Your task to perform on an android device: Turn off the flashlight Image 0: 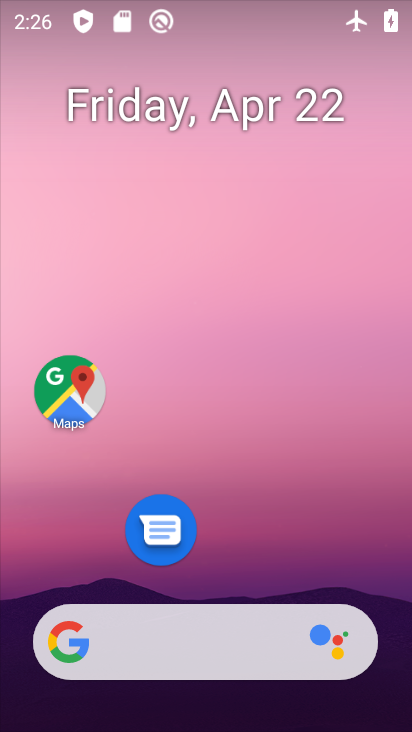
Step 0: drag from (288, 582) to (201, 36)
Your task to perform on an android device: Turn off the flashlight Image 1: 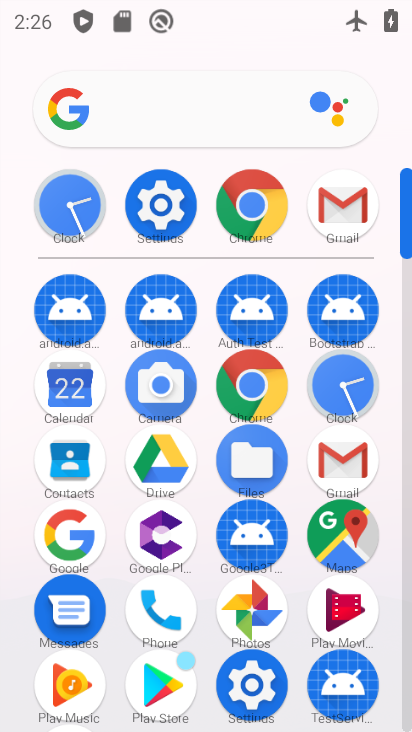
Step 1: click (164, 207)
Your task to perform on an android device: Turn off the flashlight Image 2: 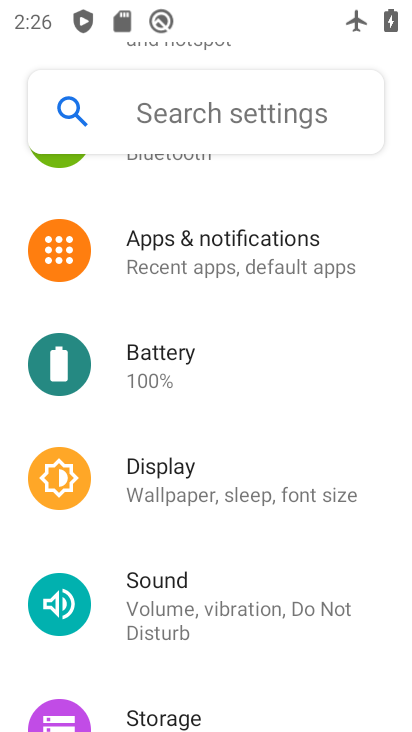
Step 2: click (225, 251)
Your task to perform on an android device: Turn off the flashlight Image 3: 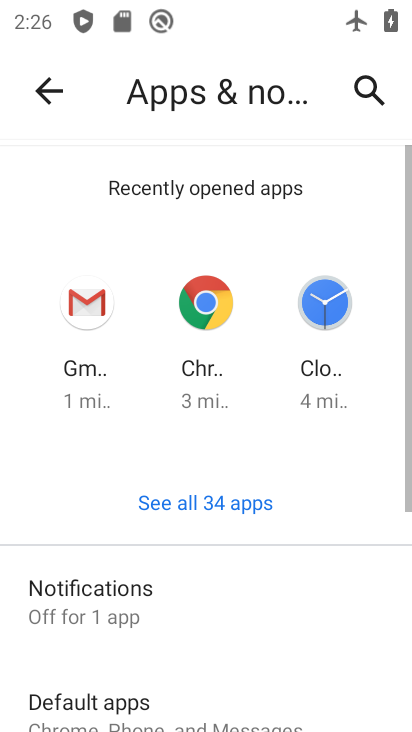
Step 3: task complete